Your task to perform on an android device: Go to display settings Image 0: 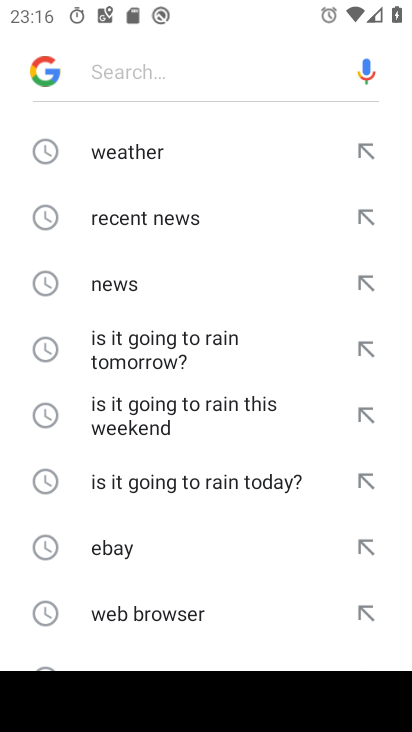
Step 0: press home button
Your task to perform on an android device: Go to display settings Image 1: 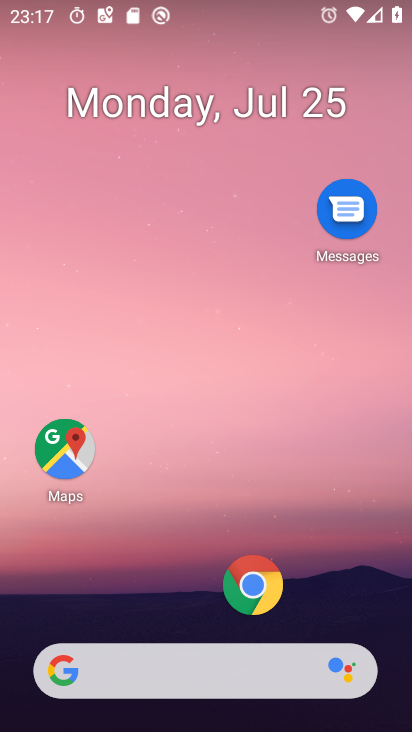
Step 1: drag from (176, 670) to (307, 103)
Your task to perform on an android device: Go to display settings Image 2: 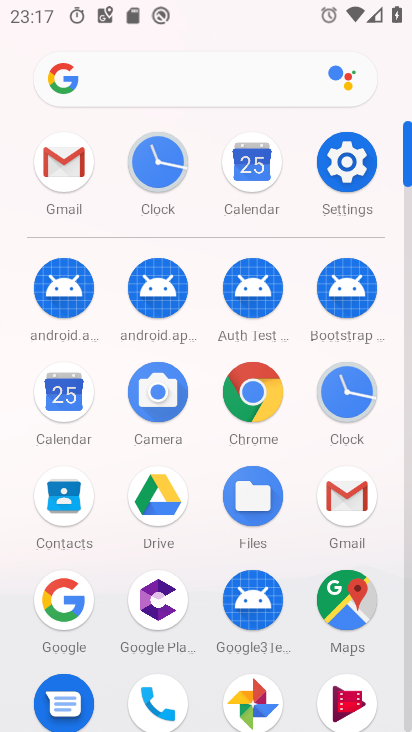
Step 2: click (349, 165)
Your task to perform on an android device: Go to display settings Image 3: 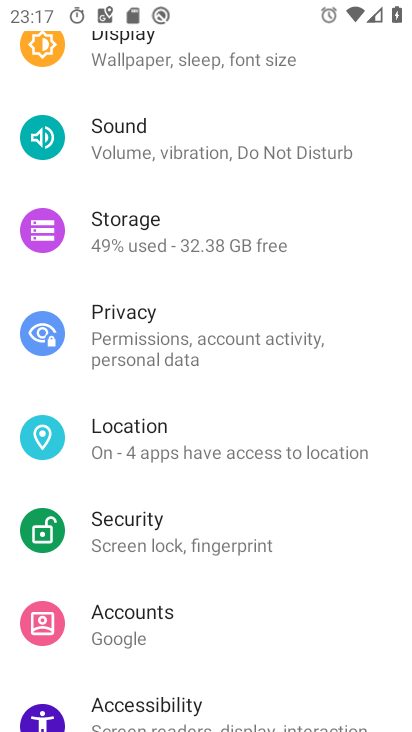
Step 3: drag from (307, 211) to (262, 605)
Your task to perform on an android device: Go to display settings Image 4: 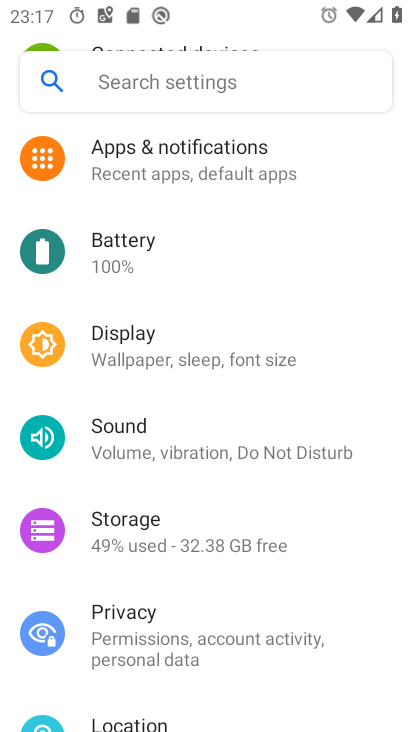
Step 4: click (151, 339)
Your task to perform on an android device: Go to display settings Image 5: 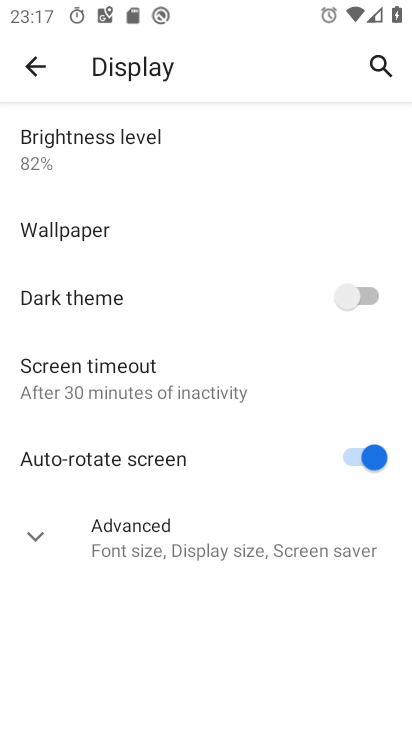
Step 5: task complete